Your task to perform on an android device: Go to ESPN.com Image 0: 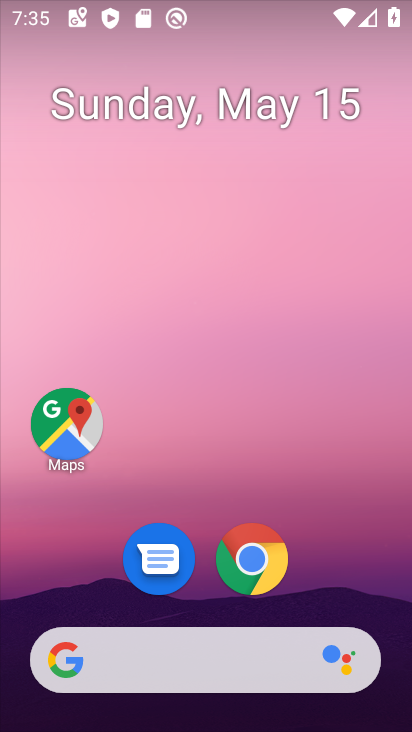
Step 0: click (241, 576)
Your task to perform on an android device: Go to ESPN.com Image 1: 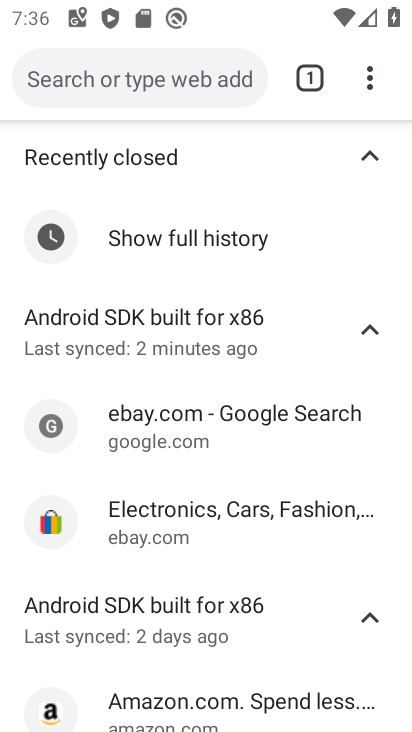
Step 1: click (127, 71)
Your task to perform on an android device: Go to ESPN.com Image 2: 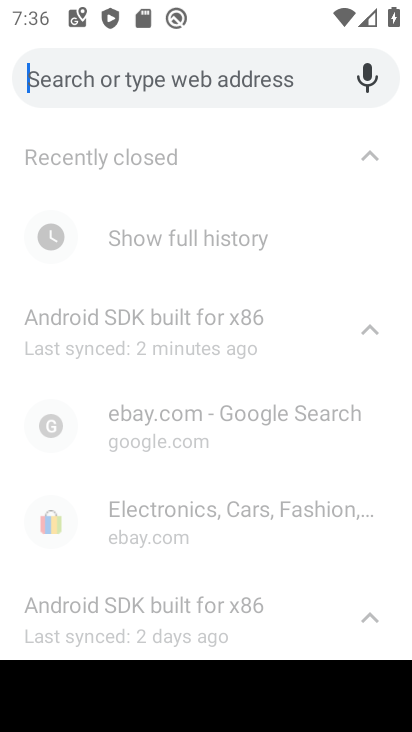
Step 2: type "espn.com"
Your task to perform on an android device: Go to ESPN.com Image 3: 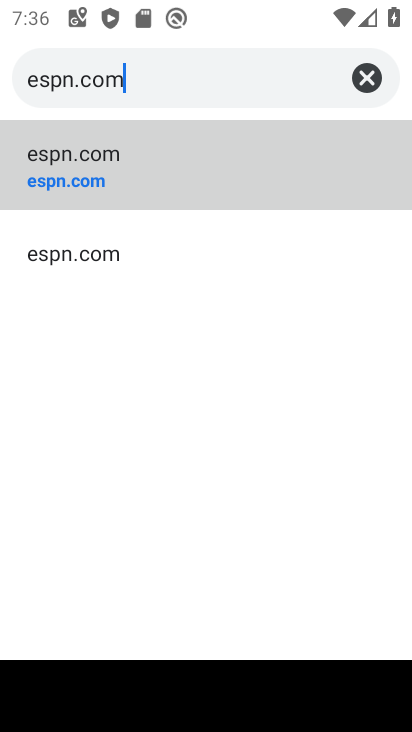
Step 3: click (89, 200)
Your task to perform on an android device: Go to ESPN.com Image 4: 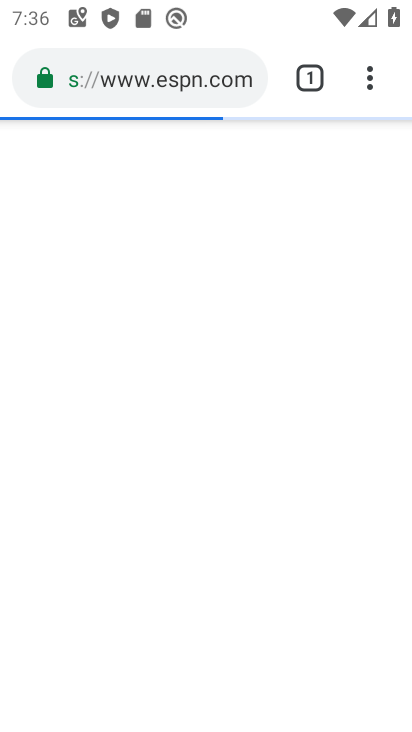
Step 4: task complete